Your task to perform on an android device: turn off notifications settings in the gmail app Image 0: 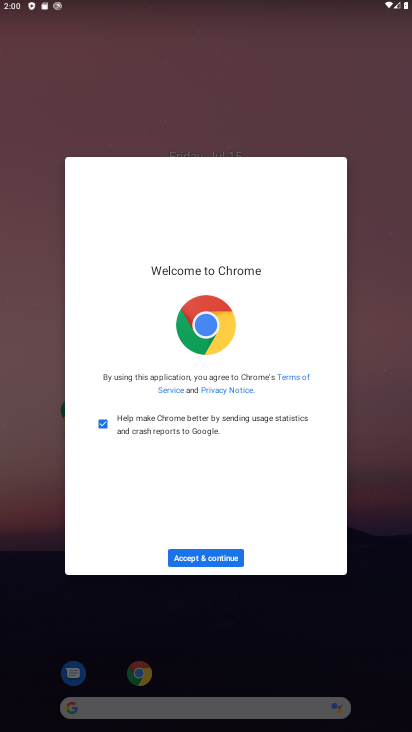
Step 0: press home button
Your task to perform on an android device: turn off notifications settings in the gmail app Image 1: 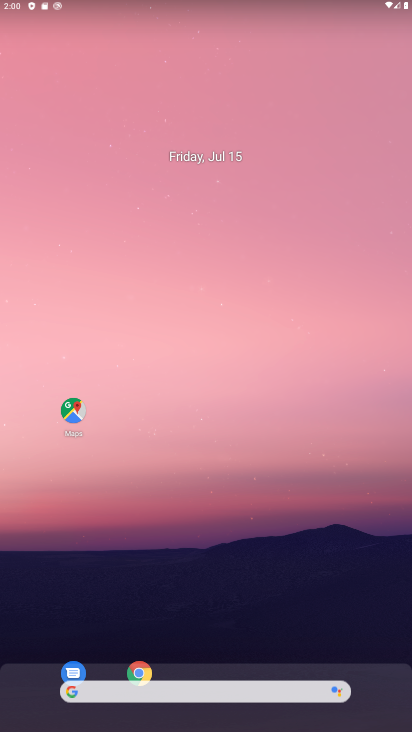
Step 1: drag from (198, 582) to (263, 224)
Your task to perform on an android device: turn off notifications settings in the gmail app Image 2: 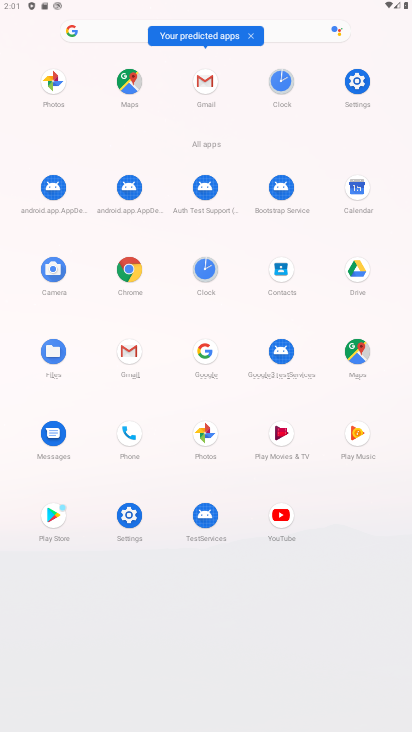
Step 2: click (133, 353)
Your task to perform on an android device: turn off notifications settings in the gmail app Image 3: 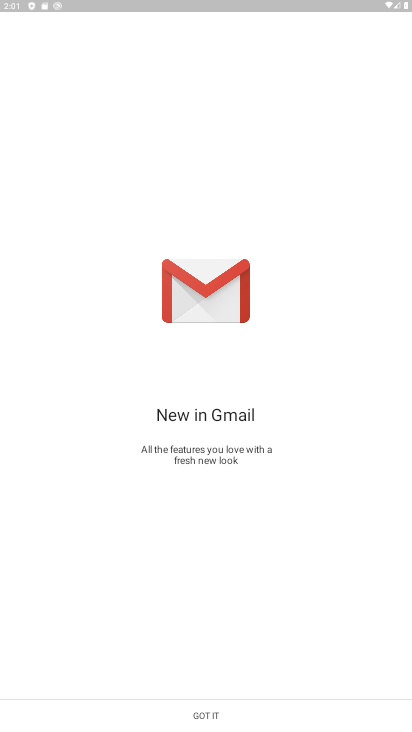
Step 3: click (181, 719)
Your task to perform on an android device: turn off notifications settings in the gmail app Image 4: 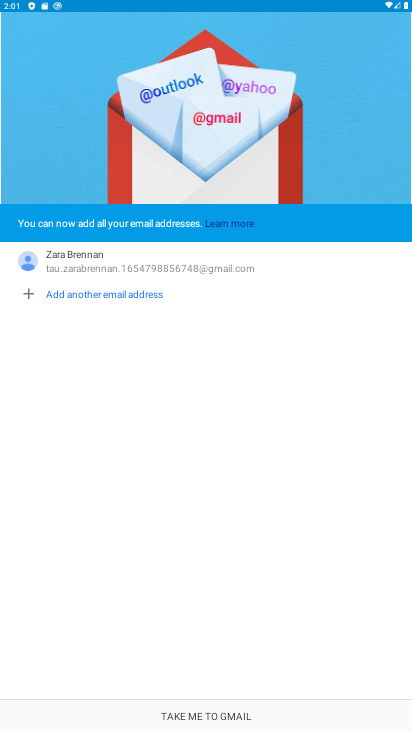
Step 4: click (240, 724)
Your task to perform on an android device: turn off notifications settings in the gmail app Image 5: 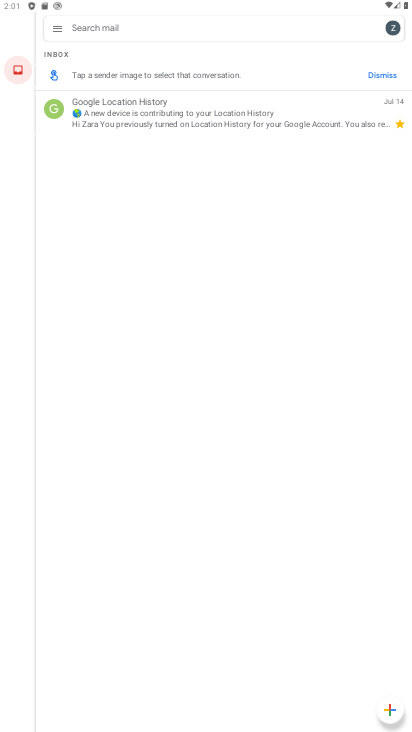
Step 5: click (52, 22)
Your task to perform on an android device: turn off notifications settings in the gmail app Image 6: 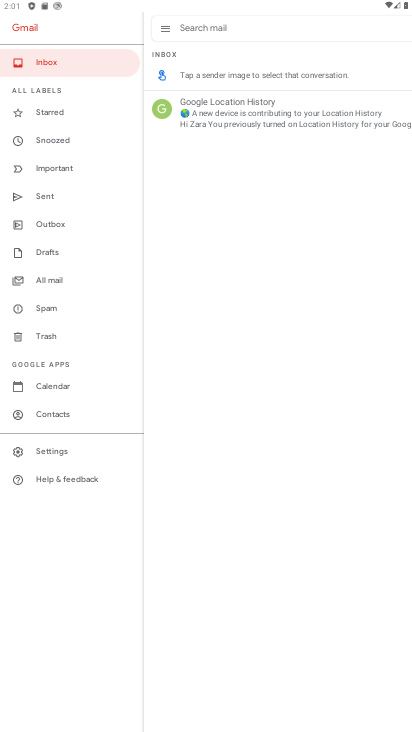
Step 6: click (47, 448)
Your task to perform on an android device: turn off notifications settings in the gmail app Image 7: 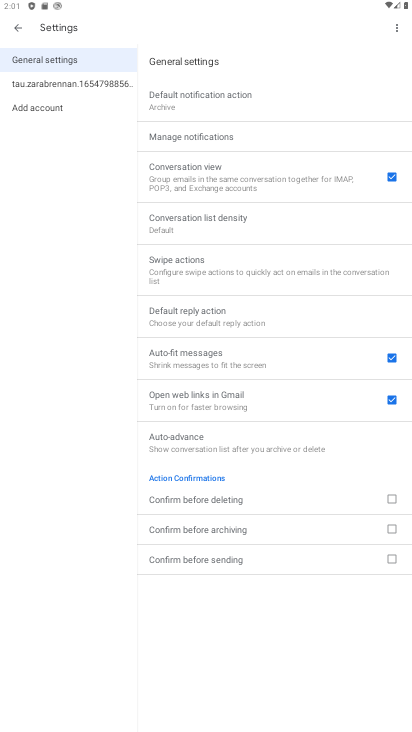
Step 7: click (93, 79)
Your task to perform on an android device: turn off notifications settings in the gmail app Image 8: 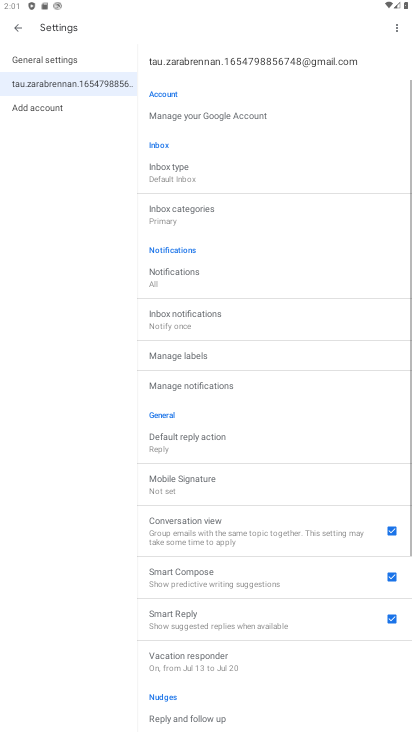
Step 8: click (190, 380)
Your task to perform on an android device: turn off notifications settings in the gmail app Image 9: 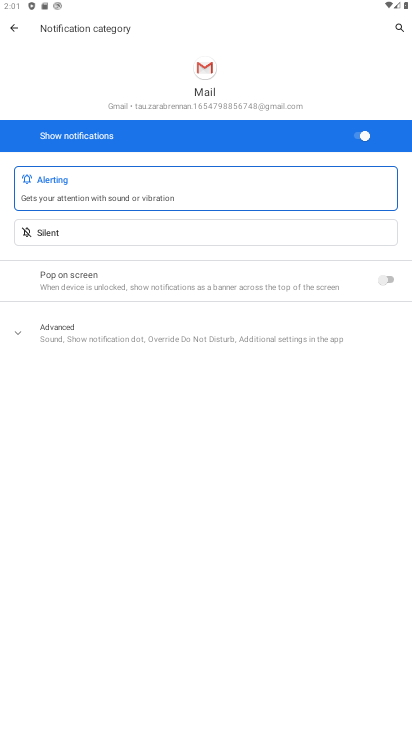
Step 9: click (357, 140)
Your task to perform on an android device: turn off notifications settings in the gmail app Image 10: 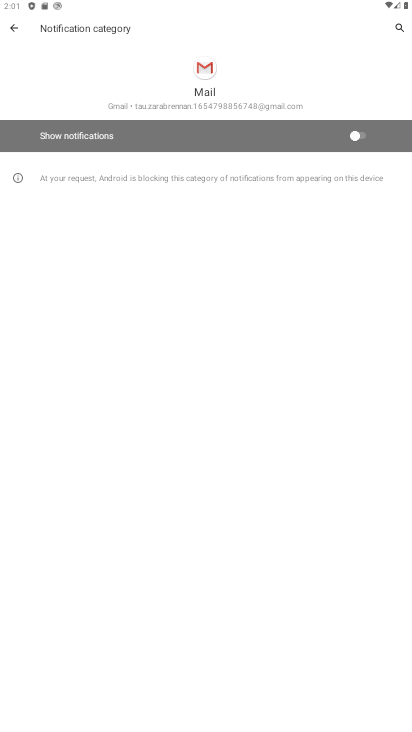
Step 10: task complete